Your task to perform on an android device: Play the last video I watched on Youtube Image 0: 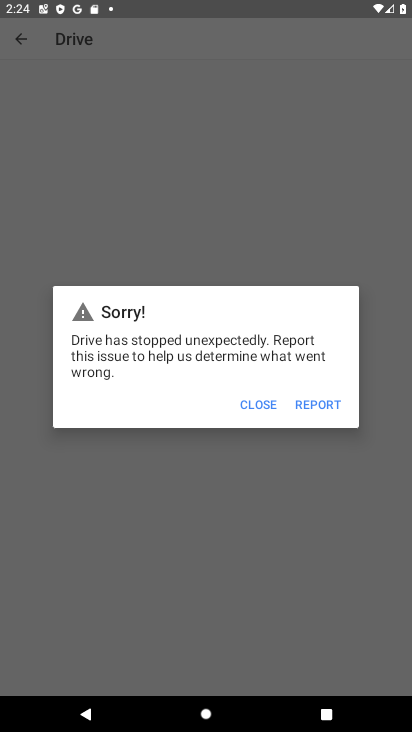
Step 0: press home button
Your task to perform on an android device: Play the last video I watched on Youtube Image 1: 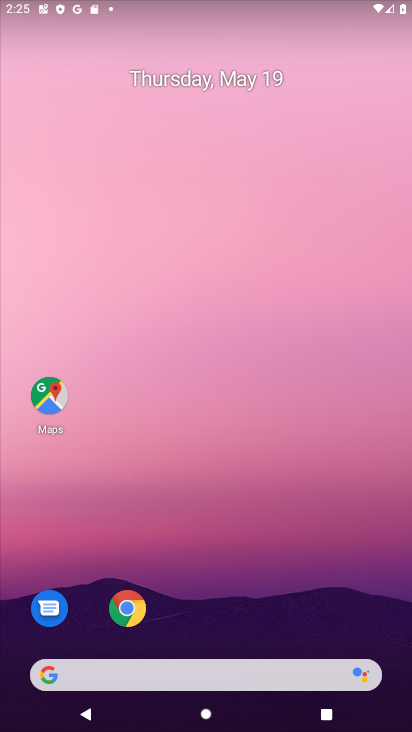
Step 1: drag from (227, 634) to (280, 73)
Your task to perform on an android device: Play the last video I watched on Youtube Image 2: 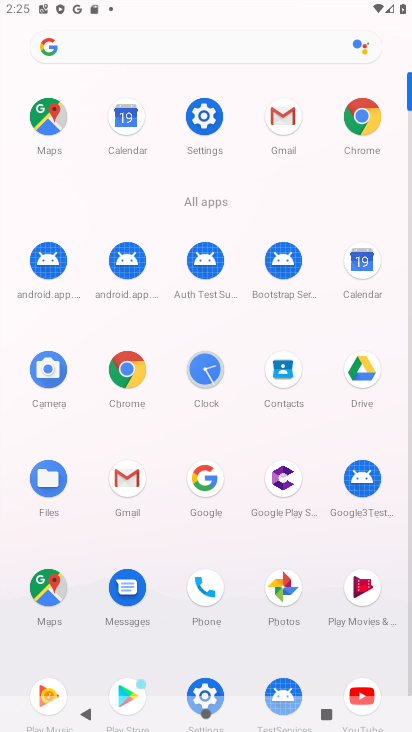
Step 2: click (357, 692)
Your task to perform on an android device: Play the last video I watched on Youtube Image 3: 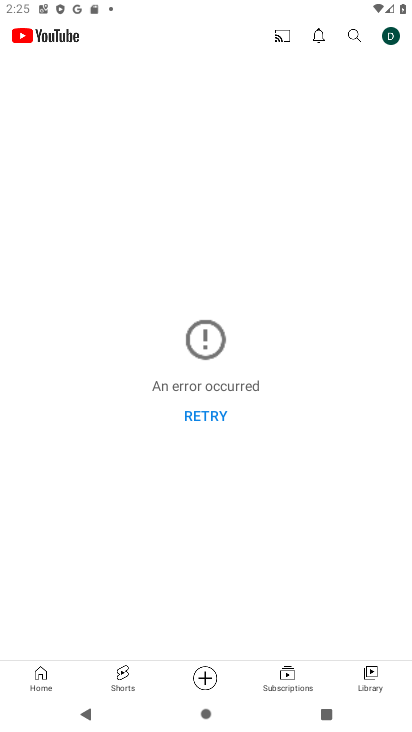
Step 3: click (373, 680)
Your task to perform on an android device: Play the last video I watched on Youtube Image 4: 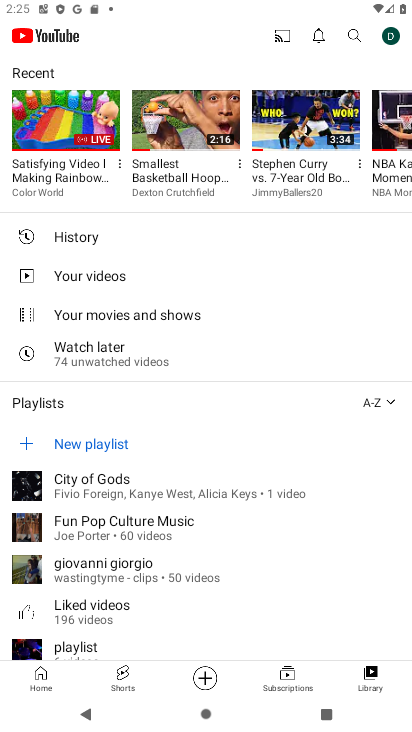
Step 4: click (72, 101)
Your task to perform on an android device: Play the last video I watched on Youtube Image 5: 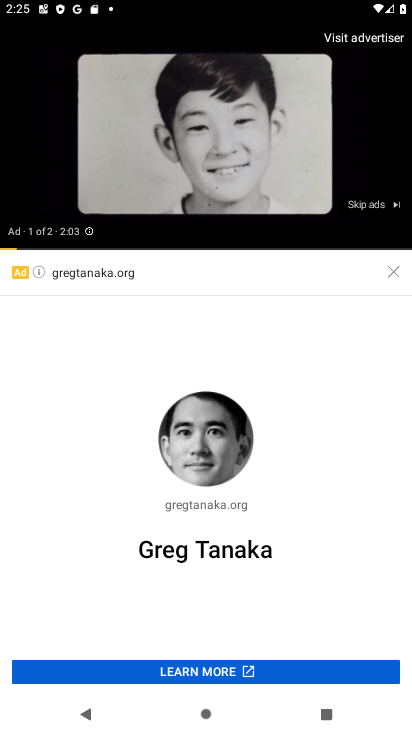
Step 5: task complete